Your task to perform on an android device: Open calendar and show me the second week of next month Image 0: 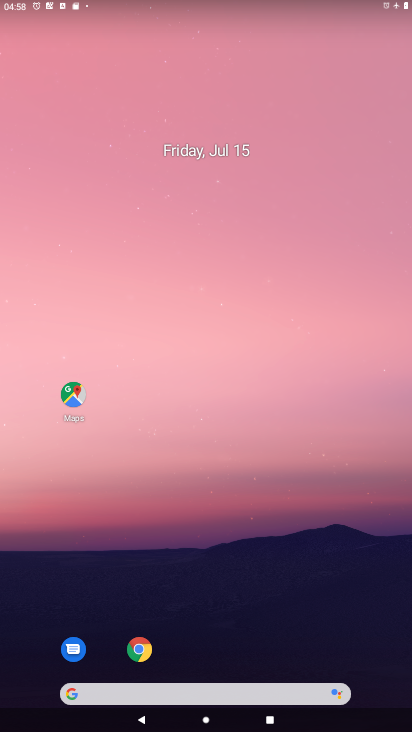
Step 0: drag from (376, 647) to (281, 42)
Your task to perform on an android device: Open calendar and show me the second week of next month Image 1: 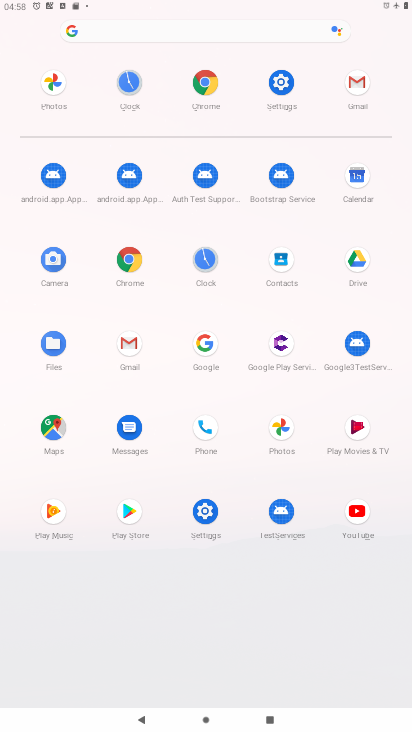
Step 1: click (355, 175)
Your task to perform on an android device: Open calendar and show me the second week of next month Image 2: 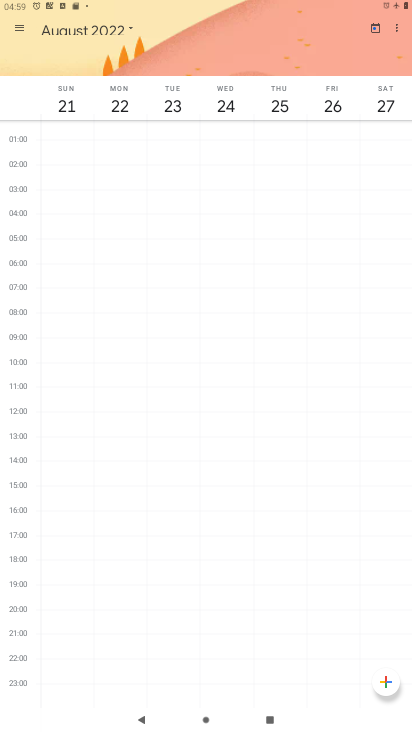
Step 2: click (128, 27)
Your task to perform on an android device: Open calendar and show me the second week of next month Image 3: 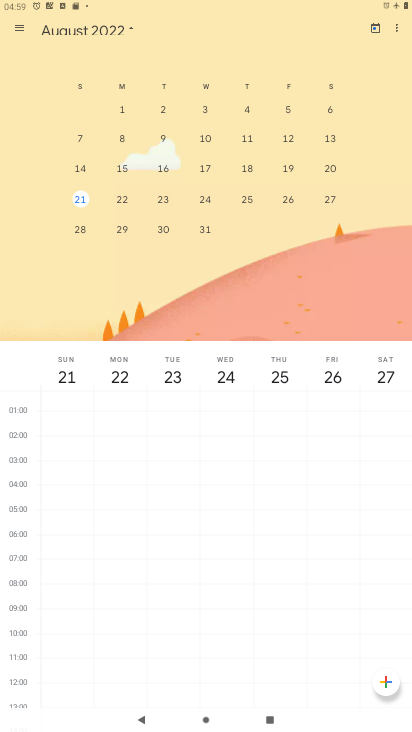
Step 3: click (79, 165)
Your task to perform on an android device: Open calendar and show me the second week of next month Image 4: 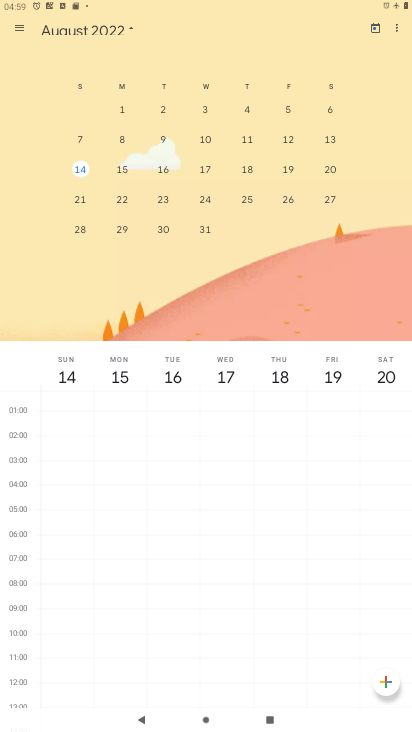
Step 4: task complete